Your task to perform on an android device: toggle pop-ups in chrome Image 0: 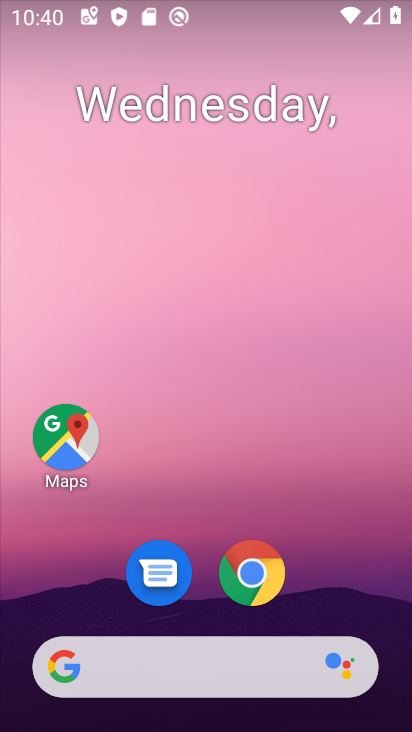
Step 0: click (251, 575)
Your task to perform on an android device: toggle pop-ups in chrome Image 1: 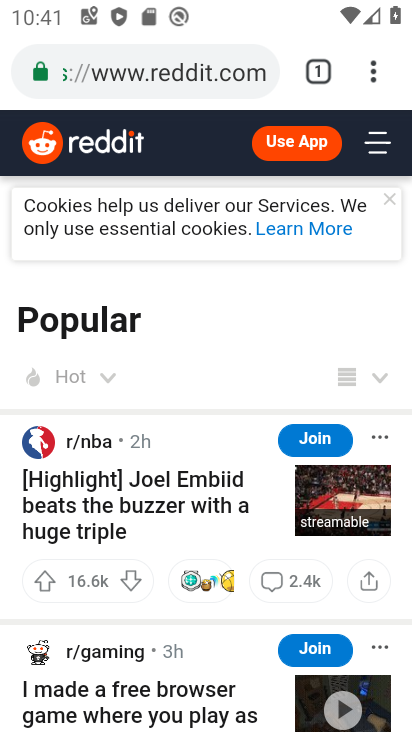
Step 1: click (374, 76)
Your task to perform on an android device: toggle pop-ups in chrome Image 2: 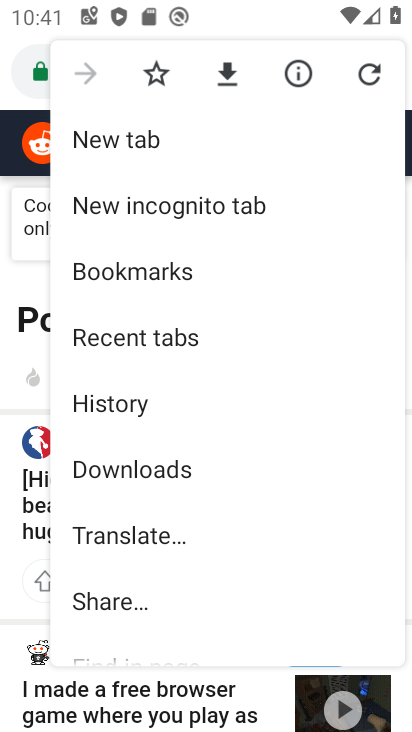
Step 2: drag from (210, 561) to (251, 358)
Your task to perform on an android device: toggle pop-ups in chrome Image 3: 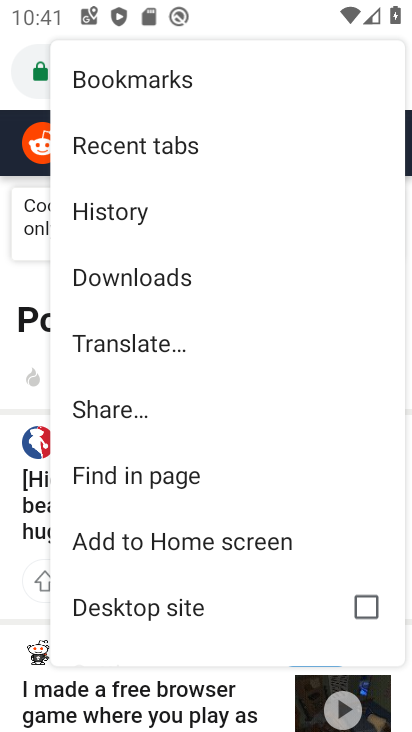
Step 3: drag from (229, 469) to (279, 260)
Your task to perform on an android device: toggle pop-ups in chrome Image 4: 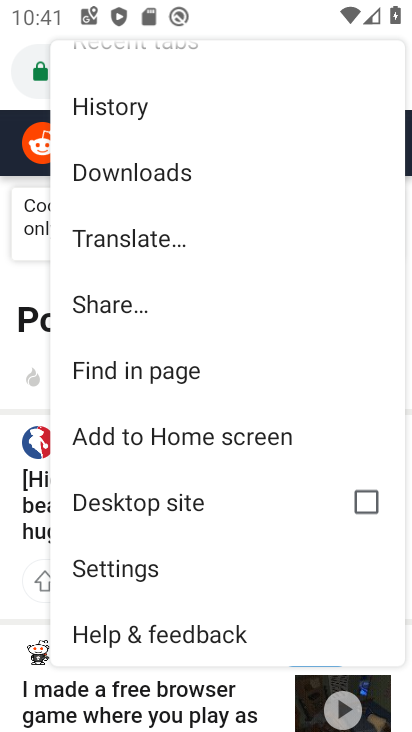
Step 4: click (147, 570)
Your task to perform on an android device: toggle pop-ups in chrome Image 5: 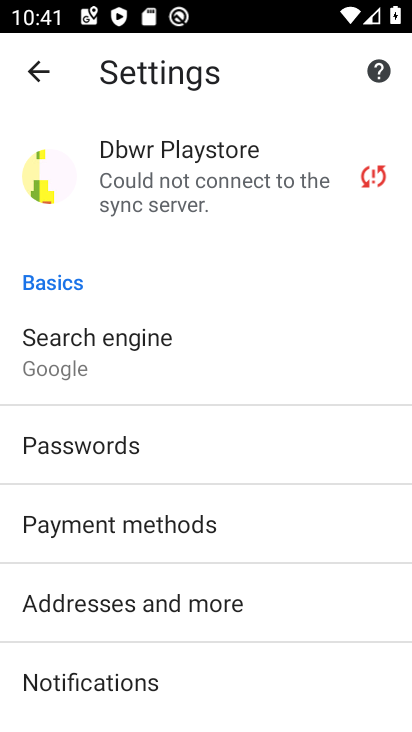
Step 5: drag from (242, 580) to (258, 404)
Your task to perform on an android device: toggle pop-ups in chrome Image 6: 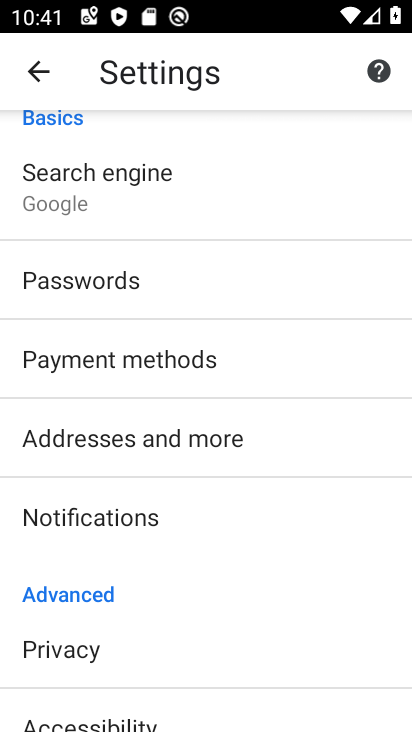
Step 6: drag from (216, 525) to (259, 393)
Your task to perform on an android device: toggle pop-ups in chrome Image 7: 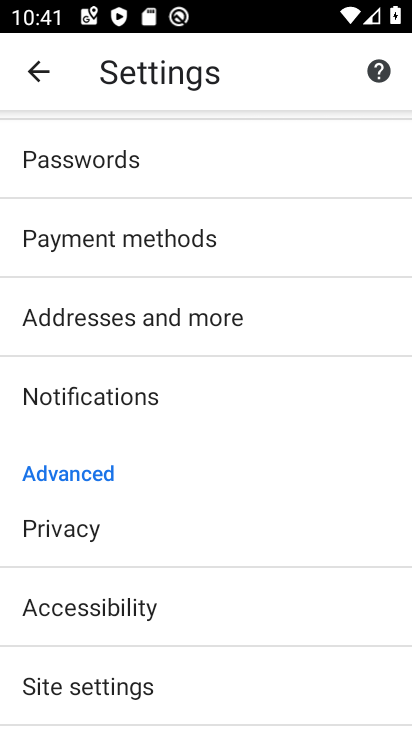
Step 7: drag from (199, 504) to (264, 364)
Your task to perform on an android device: toggle pop-ups in chrome Image 8: 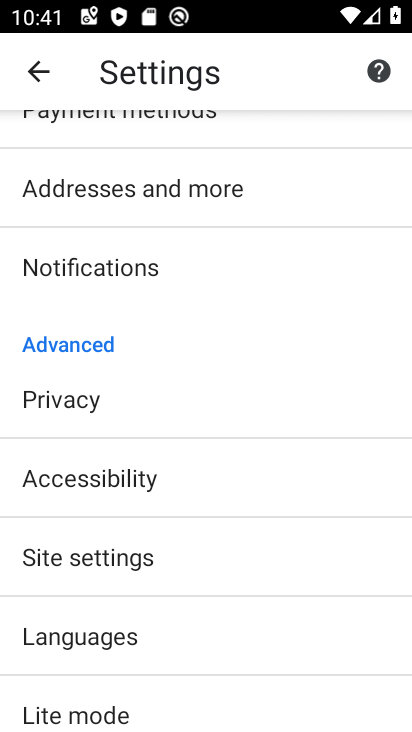
Step 8: click (134, 559)
Your task to perform on an android device: toggle pop-ups in chrome Image 9: 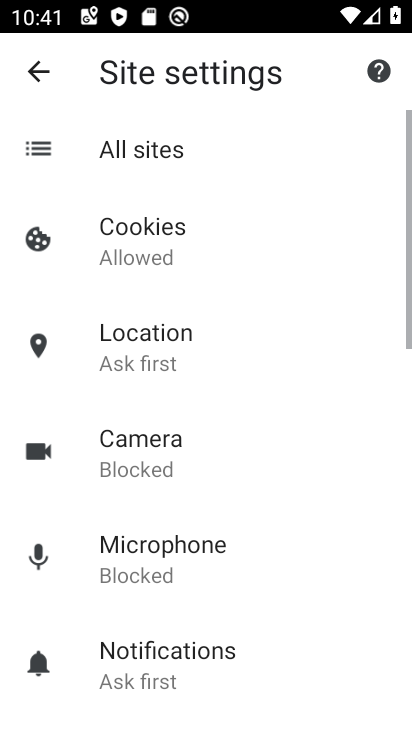
Step 9: drag from (240, 624) to (250, 456)
Your task to perform on an android device: toggle pop-ups in chrome Image 10: 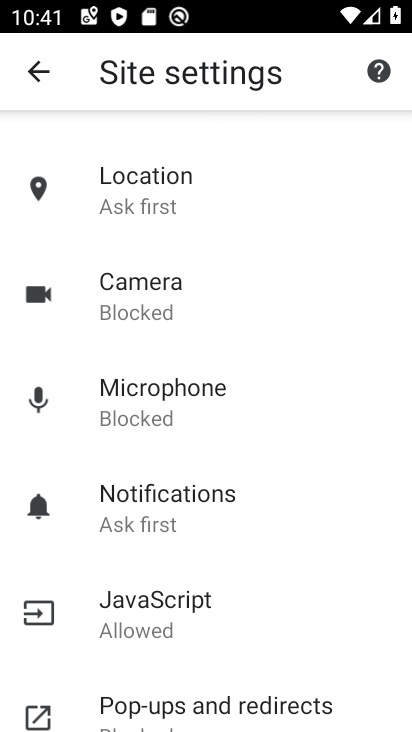
Step 10: drag from (233, 622) to (266, 434)
Your task to perform on an android device: toggle pop-ups in chrome Image 11: 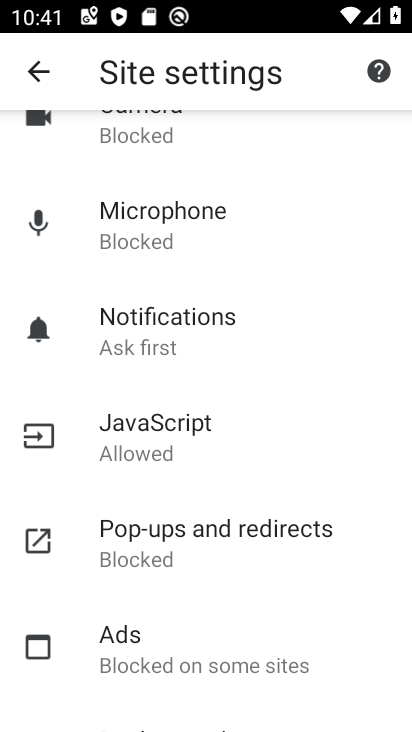
Step 11: click (258, 520)
Your task to perform on an android device: toggle pop-ups in chrome Image 12: 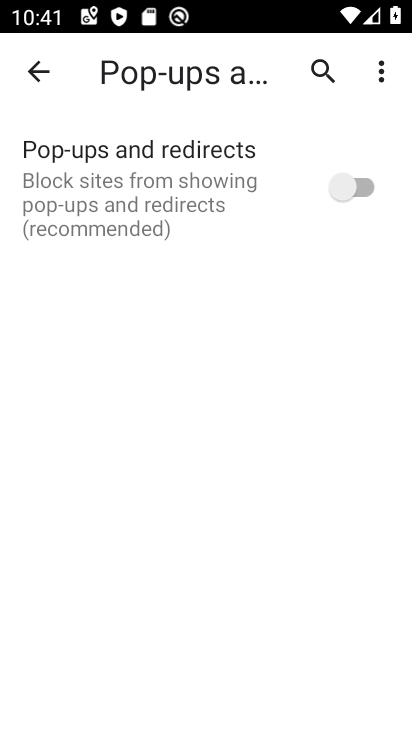
Step 12: click (367, 187)
Your task to perform on an android device: toggle pop-ups in chrome Image 13: 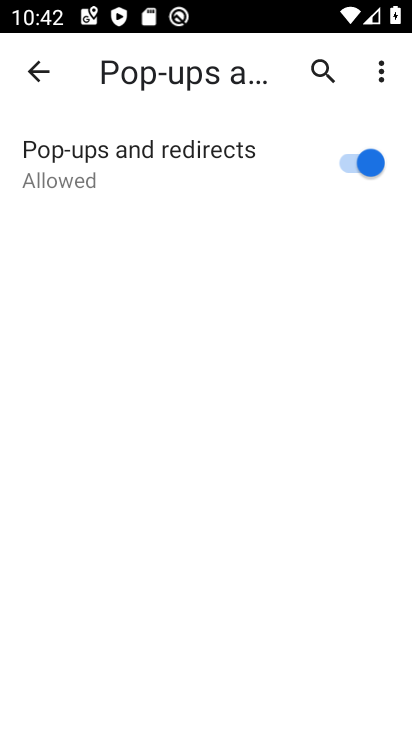
Step 13: task complete